Your task to perform on an android device: turn pop-ups off in chrome Image 0: 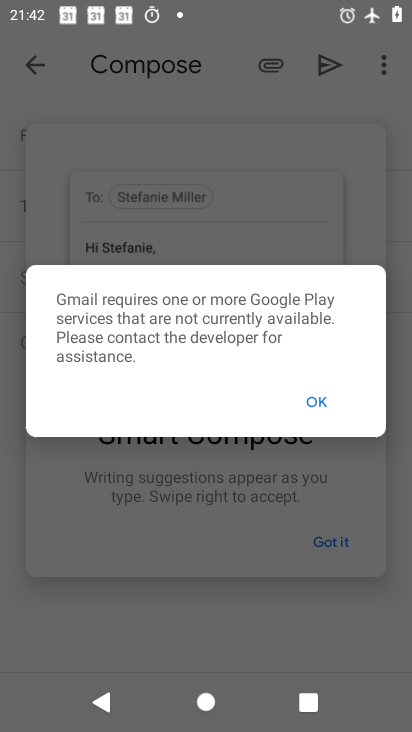
Step 0: press home button
Your task to perform on an android device: turn pop-ups off in chrome Image 1: 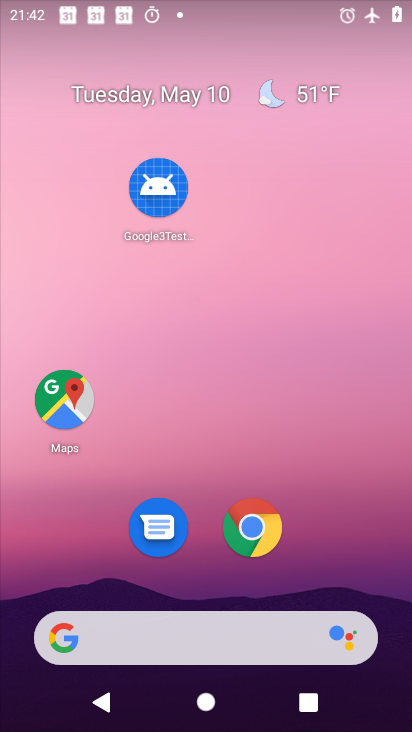
Step 1: click (253, 524)
Your task to perform on an android device: turn pop-ups off in chrome Image 2: 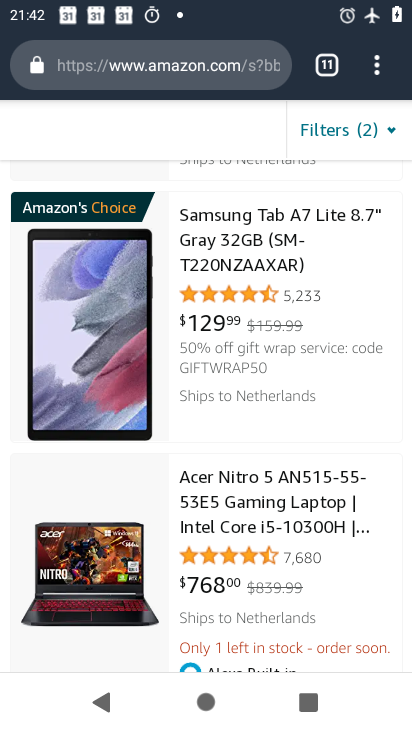
Step 2: click (383, 80)
Your task to perform on an android device: turn pop-ups off in chrome Image 3: 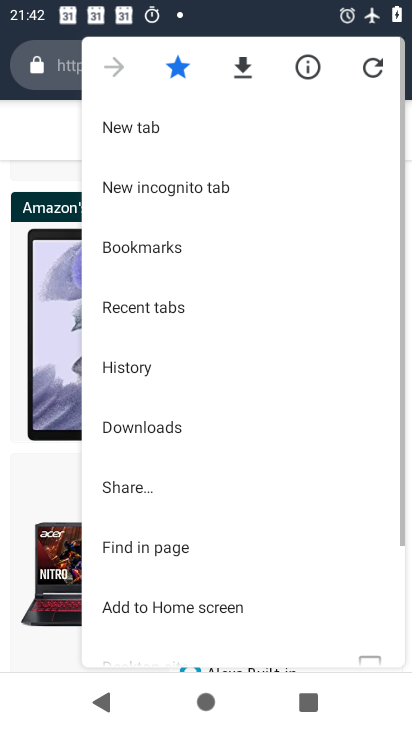
Step 3: drag from (194, 556) to (190, 51)
Your task to perform on an android device: turn pop-ups off in chrome Image 4: 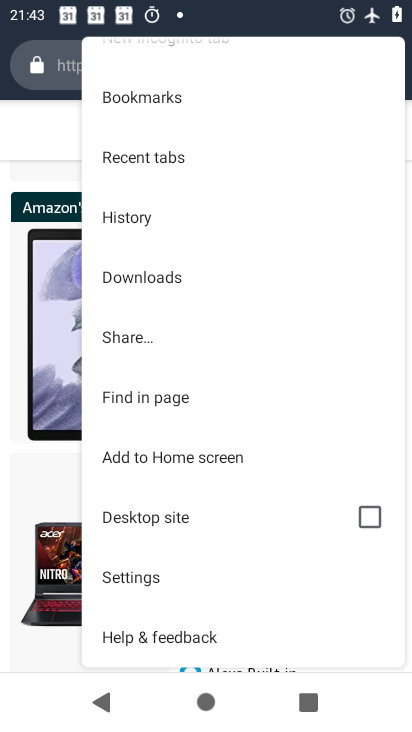
Step 4: click (147, 583)
Your task to perform on an android device: turn pop-ups off in chrome Image 5: 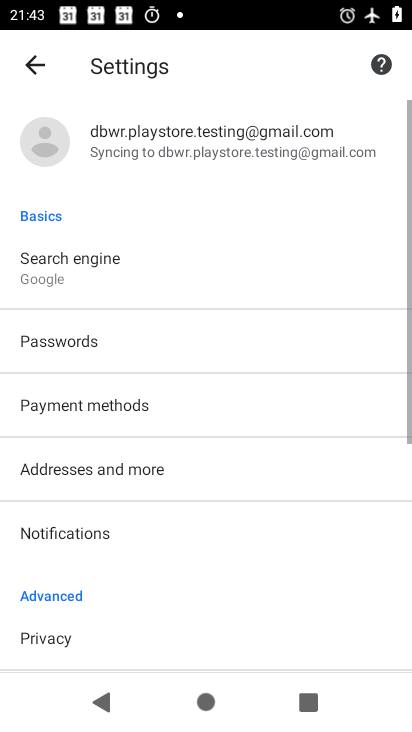
Step 5: drag from (150, 575) to (102, 254)
Your task to perform on an android device: turn pop-ups off in chrome Image 6: 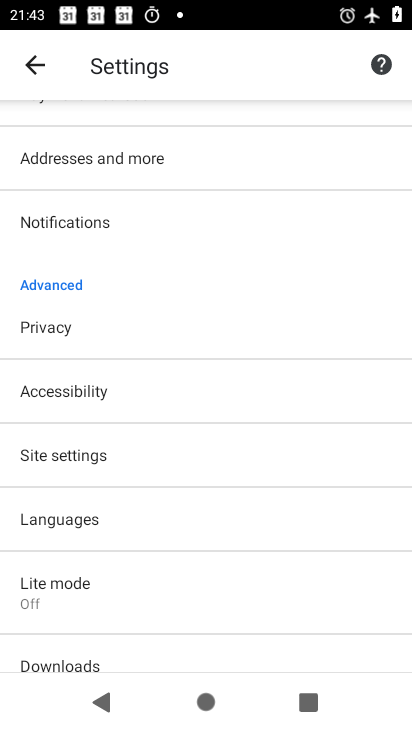
Step 6: click (76, 446)
Your task to perform on an android device: turn pop-ups off in chrome Image 7: 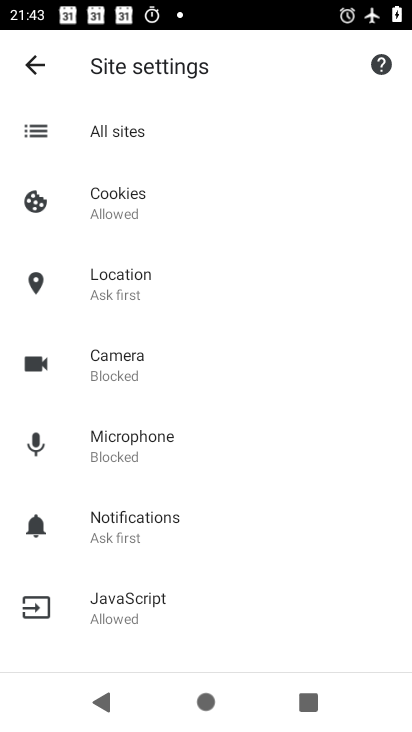
Step 7: drag from (96, 479) to (72, 242)
Your task to perform on an android device: turn pop-ups off in chrome Image 8: 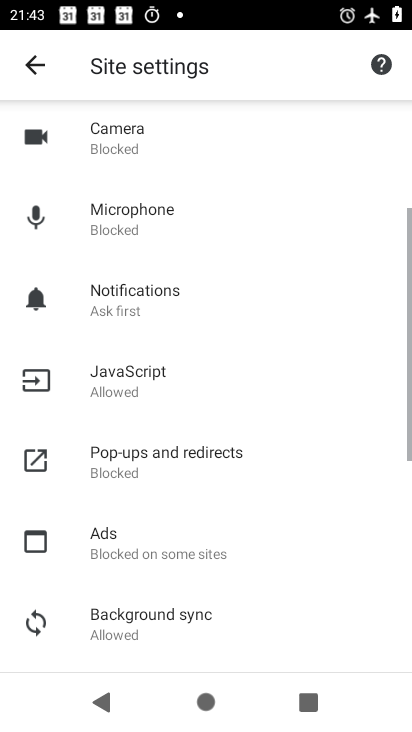
Step 8: click (88, 481)
Your task to perform on an android device: turn pop-ups off in chrome Image 9: 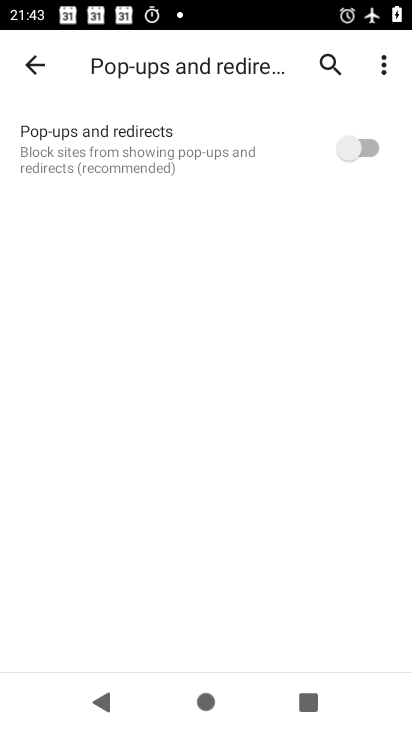
Step 9: task complete